Your task to perform on an android device: Open Amazon Image 0: 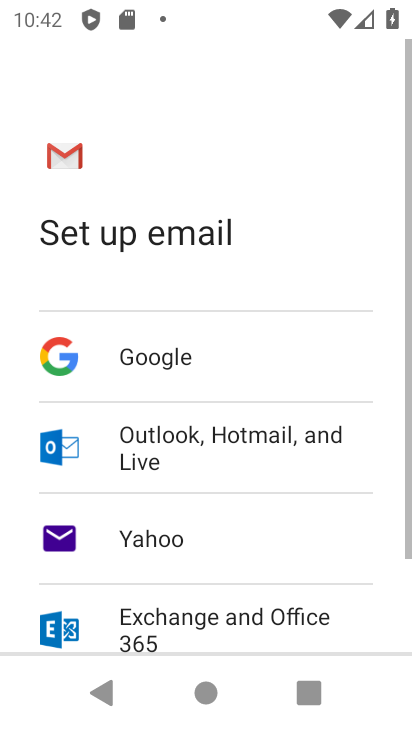
Step 0: press home button
Your task to perform on an android device: Open Amazon Image 1: 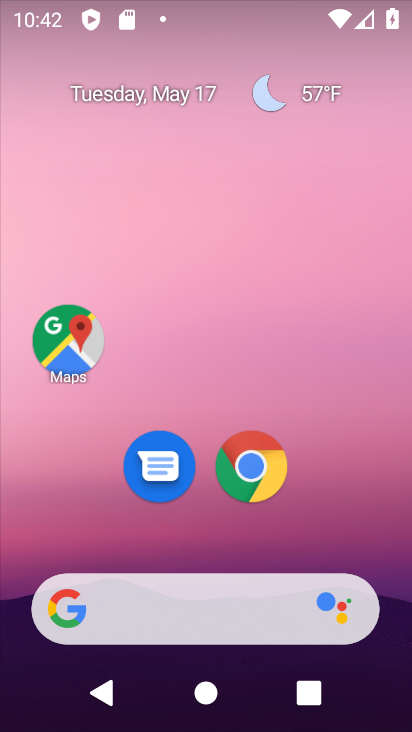
Step 1: drag from (182, 572) to (212, 206)
Your task to perform on an android device: Open Amazon Image 2: 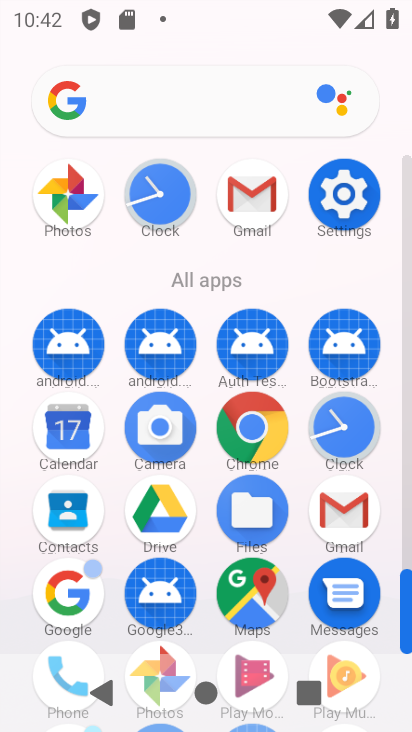
Step 2: click (353, 416)
Your task to perform on an android device: Open Amazon Image 3: 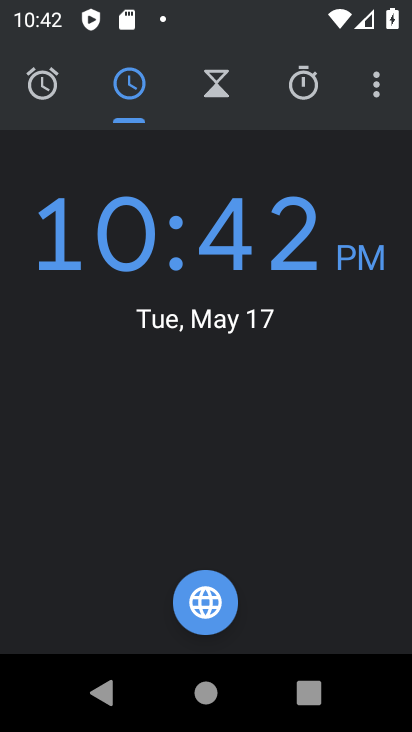
Step 3: press home button
Your task to perform on an android device: Open Amazon Image 4: 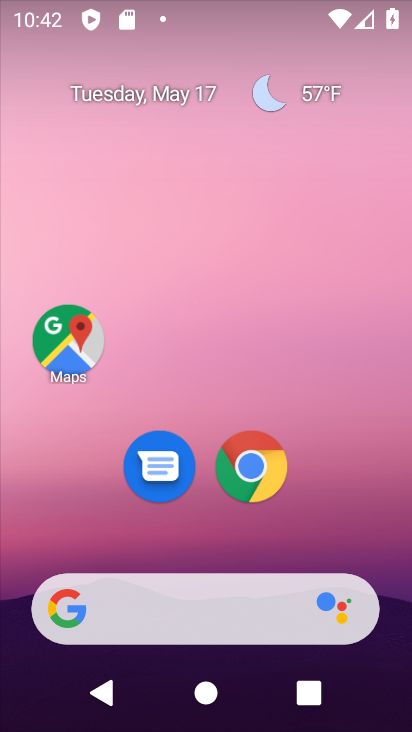
Step 4: click (242, 477)
Your task to perform on an android device: Open Amazon Image 5: 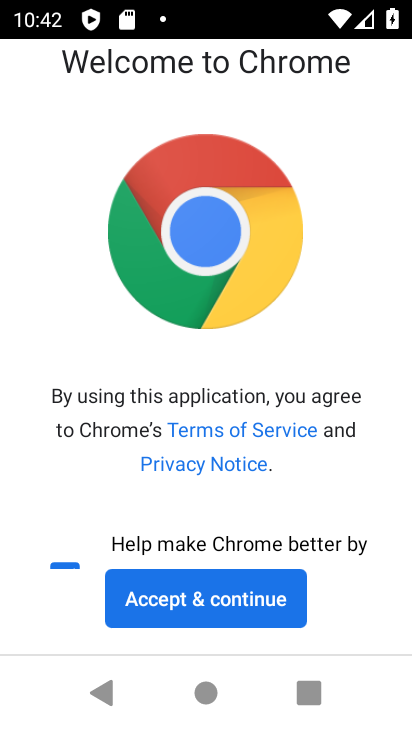
Step 5: click (206, 600)
Your task to perform on an android device: Open Amazon Image 6: 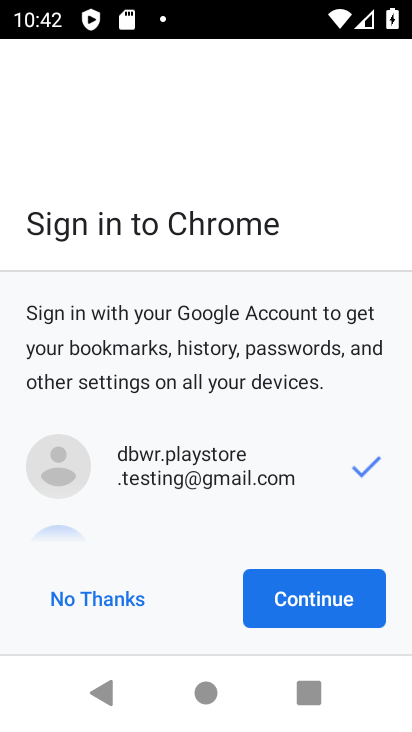
Step 6: click (347, 599)
Your task to perform on an android device: Open Amazon Image 7: 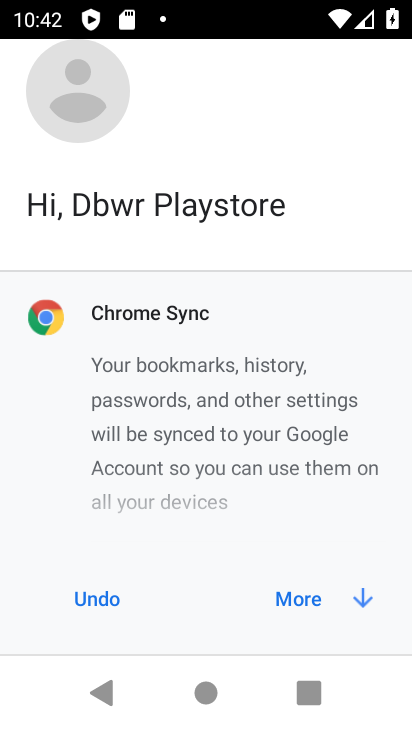
Step 7: click (310, 593)
Your task to perform on an android device: Open Amazon Image 8: 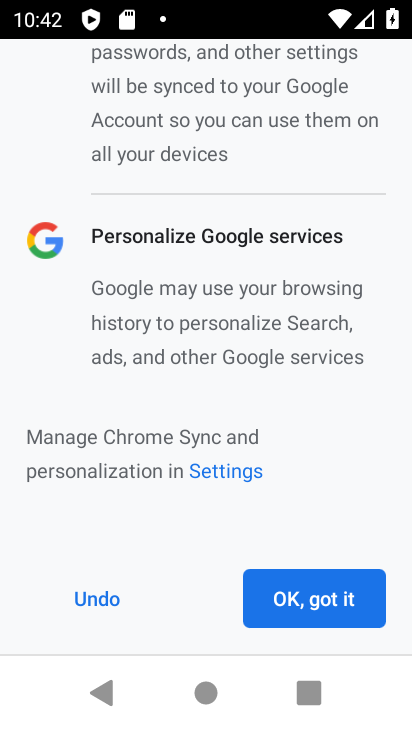
Step 8: click (310, 593)
Your task to perform on an android device: Open Amazon Image 9: 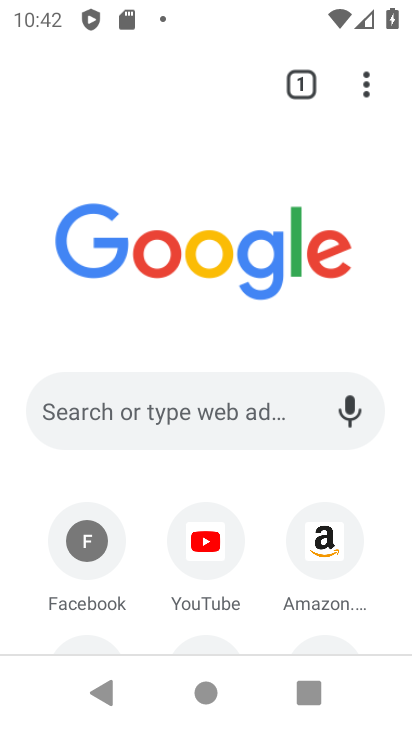
Step 9: click (325, 532)
Your task to perform on an android device: Open Amazon Image 10: 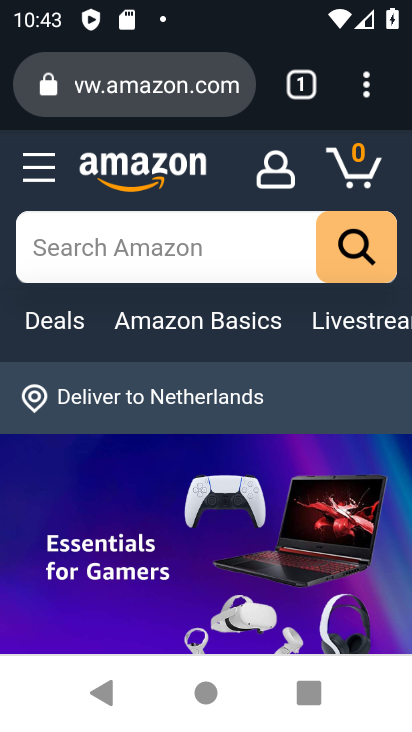
Step 10: task complete